Your task to perform on an android device: turn off location history Image 0: 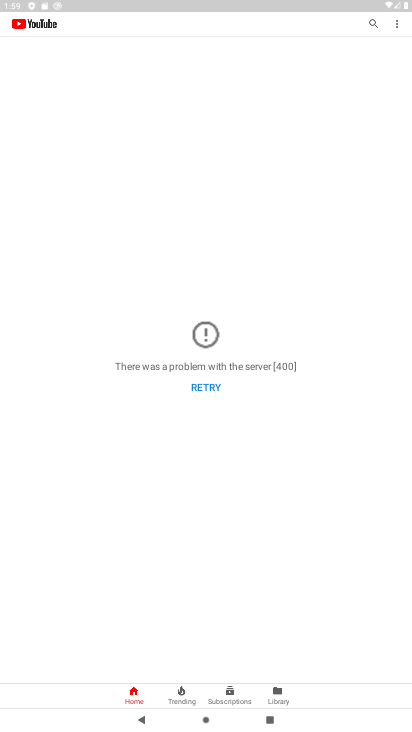
Step 0: press home button
Your task to perform on an android device: turn off location history Image 1: 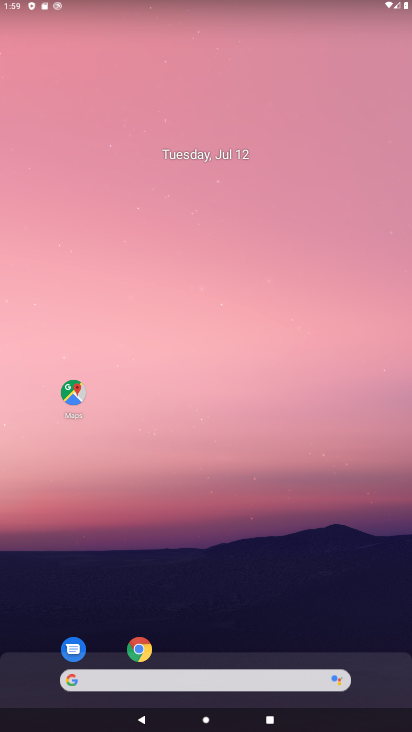
Step 1: drag from (271, 463) to (273, 299)
Your task to perform on an android device: turn off location history Image 2: 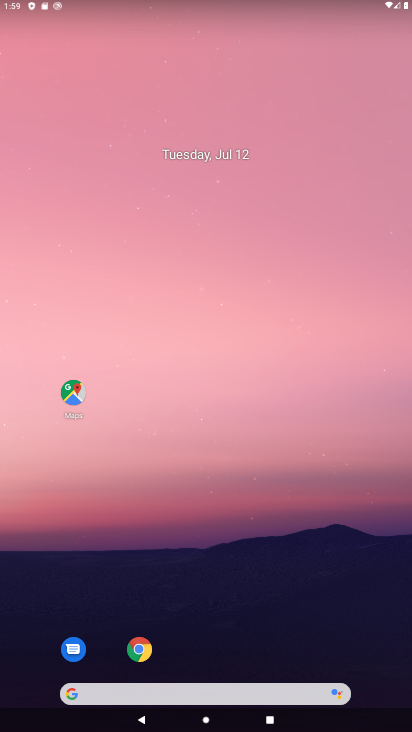
Step 2: drag from (282, 635) to (340, 15)
Your task to perform on an android device: turn off location history Image 3: 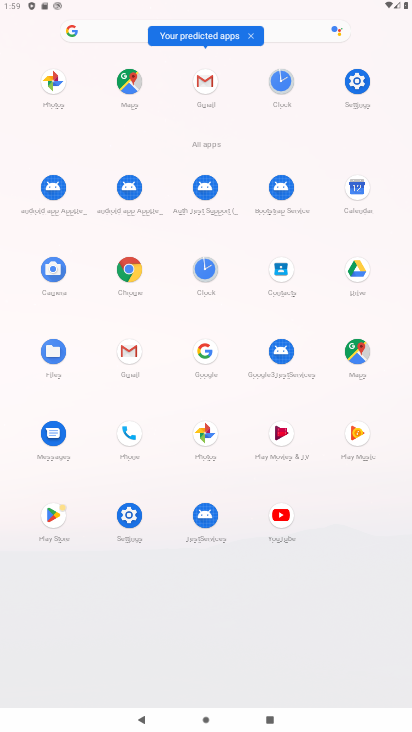
Step 3: click (348, 87)
Your task to perform on an android device: turn off location history Image 4: 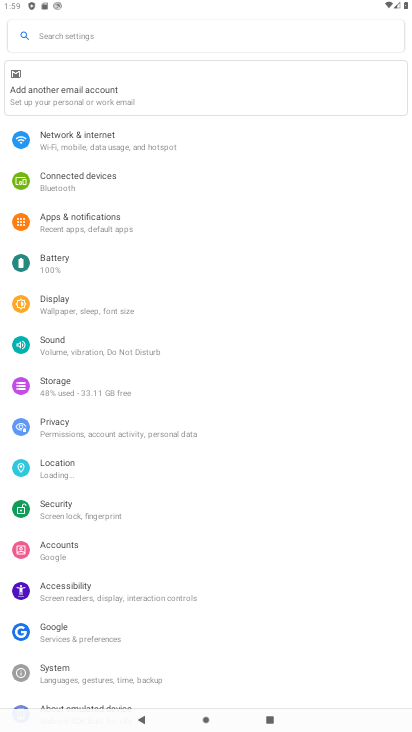
Step 4: click (79, 474)
Your task to perform on an android device: turn off location history Image 5: 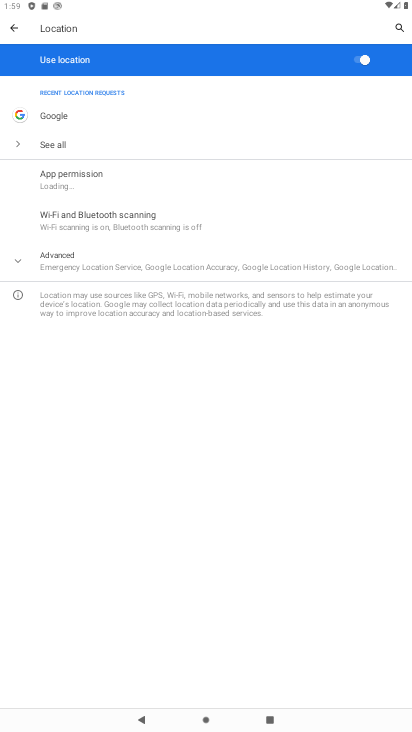
Step 5: click (161, 255)
Your task to perform on an android device: turn off location history Image 6: 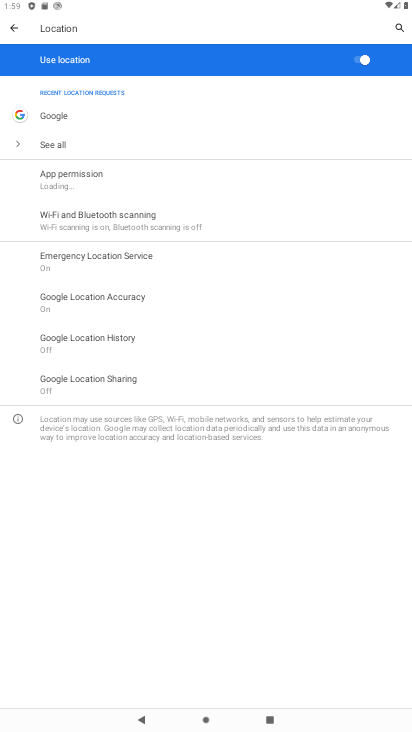
Step 6: click (127, 339)
Your task to perform on an android device: turn off location history Image 7: 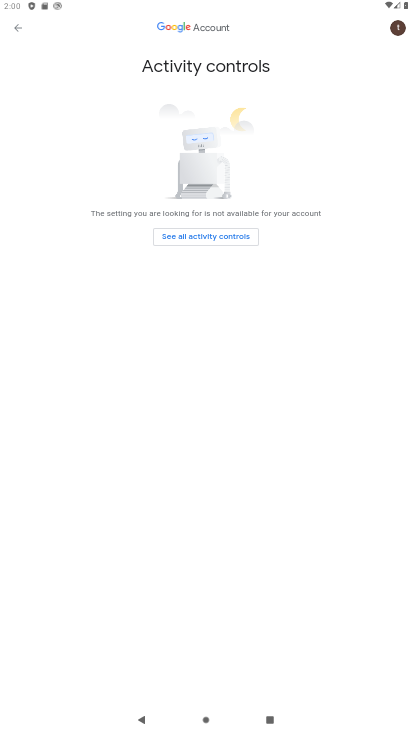
Step 7: click (206, 238)
Your task to perform on an android device: turn off location history Image 8: 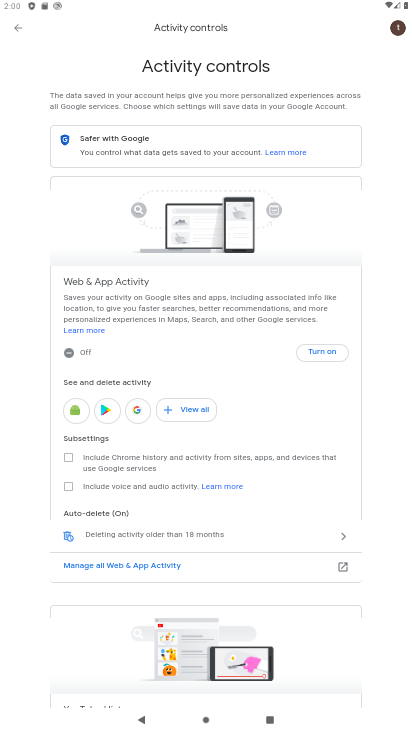
Step 8: task complete